Your task to perform on an android device: find photos in the google photos app Image 0: 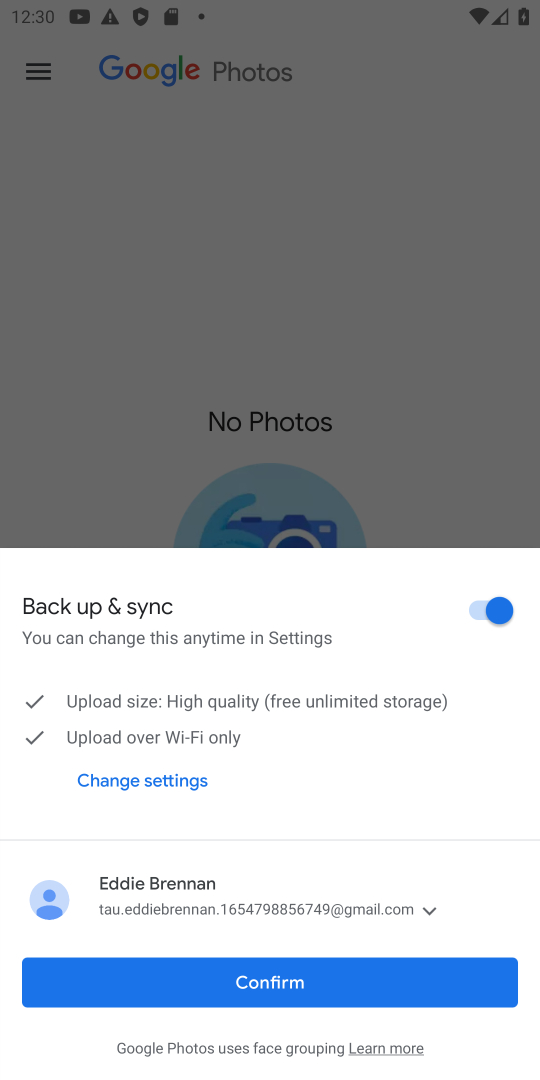
Step 0: press home button
Your task to perform on an android device: find photos in the google photos app Image 1: 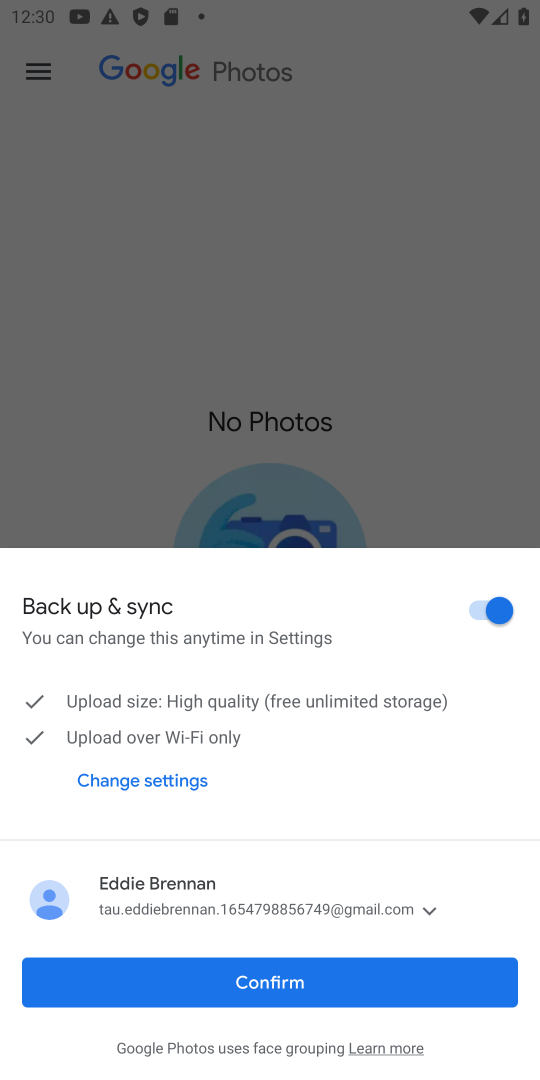
Step 1: press home button
Your task to perform on an android device: find photos in the google photos app Image 2: 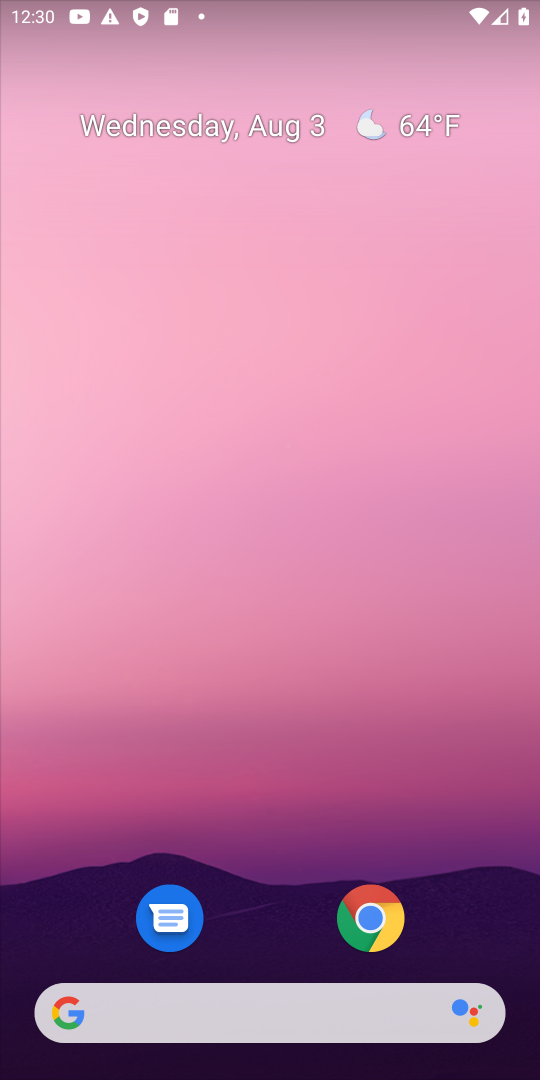
Step 2: drag from (293, 816) to (380, 15)
Your task to perform on an android device: find photos in the google photos app Image 3: 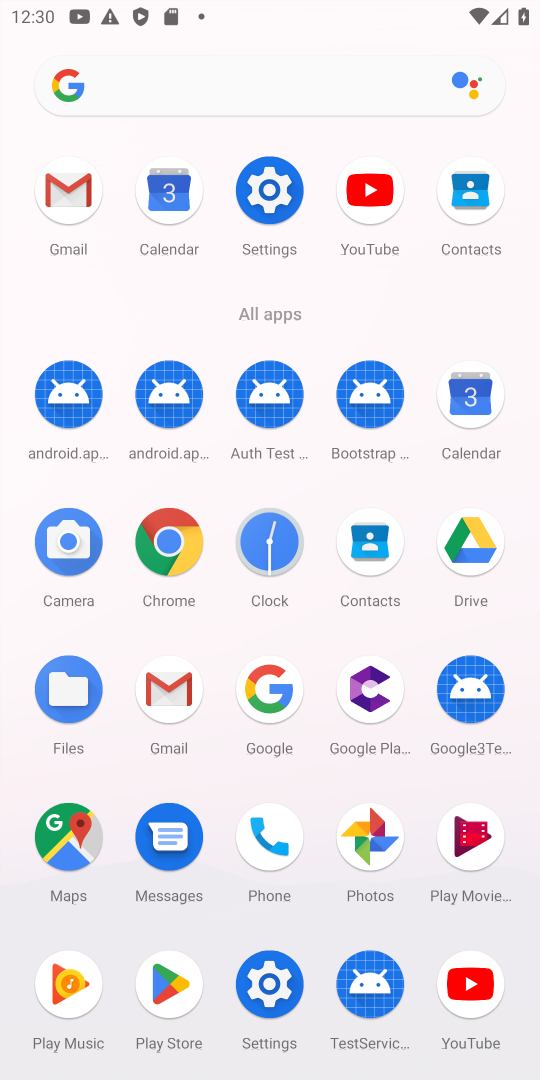
Step 3: click (377, 838)
Your task to perform on an android device: find photos in the google photos app Image 4: 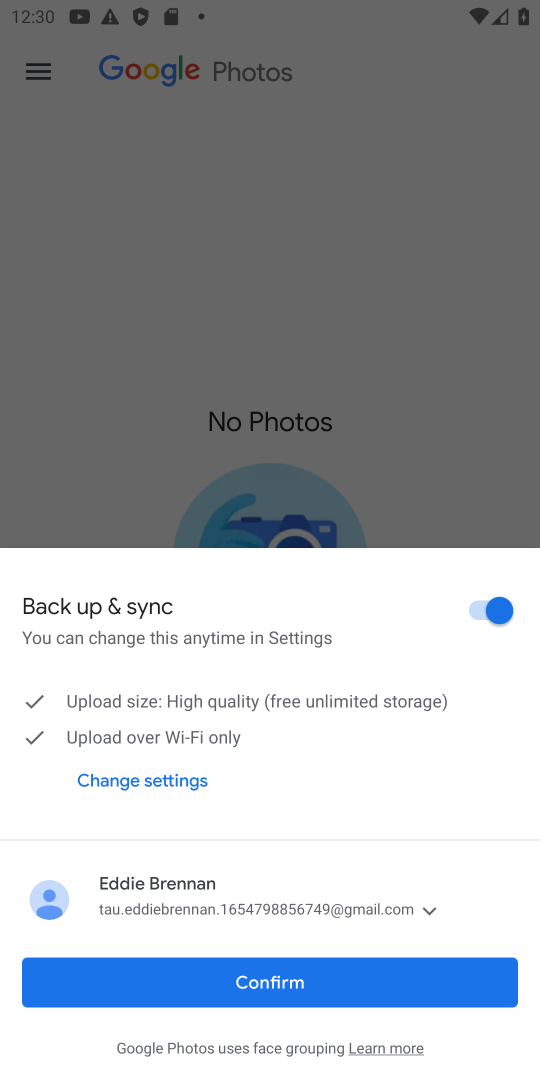
Step 4: click (356, 990)
Your task to perform on an android device: find photos in the google photos app Image 5: 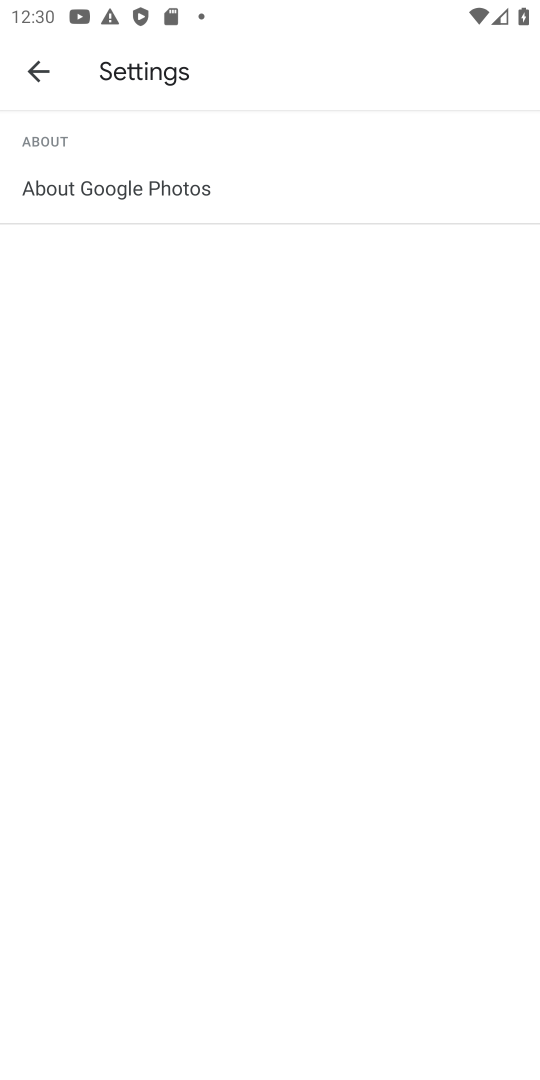
Step 5: click (41, 68)
Your task to perform on an android device: find photos in the google photos app Image 6: 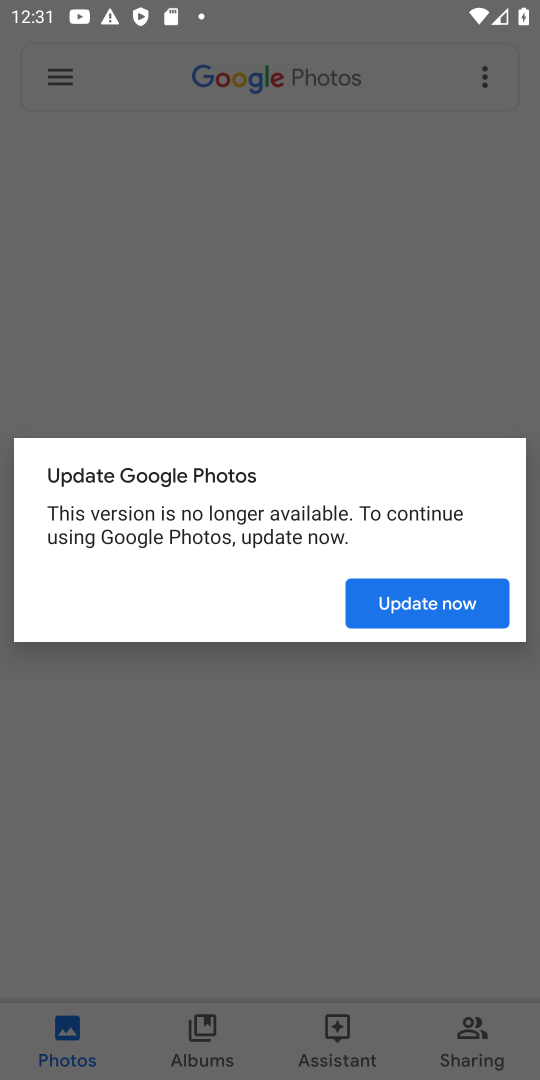
Step 6: click (392, 605)
Your task to perform on an android device: find photos in the google photos app Image 7: 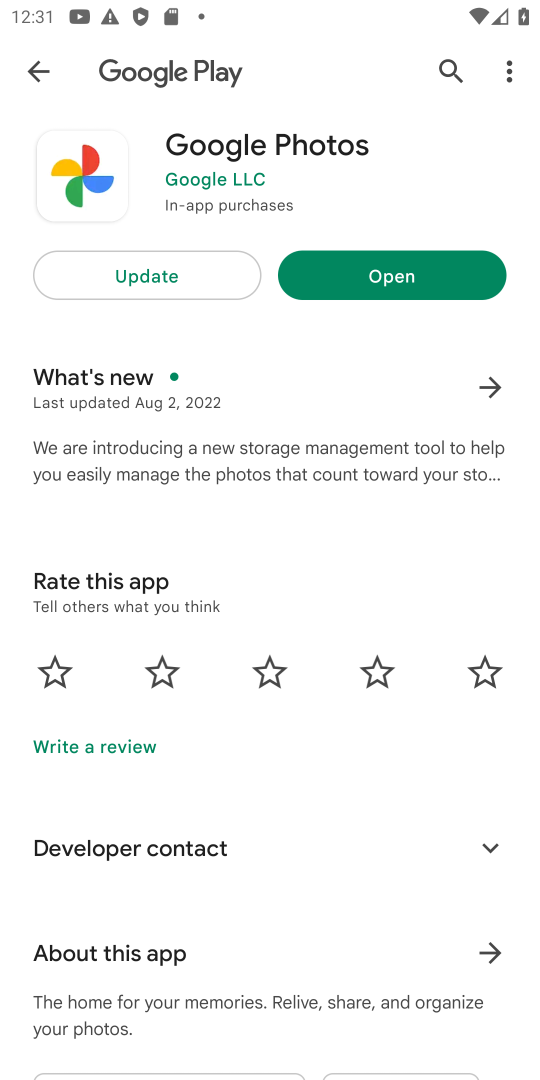
Step 7: click (175, 273)
Your task to perform on an android device: find photos in the google photos app Image 8: 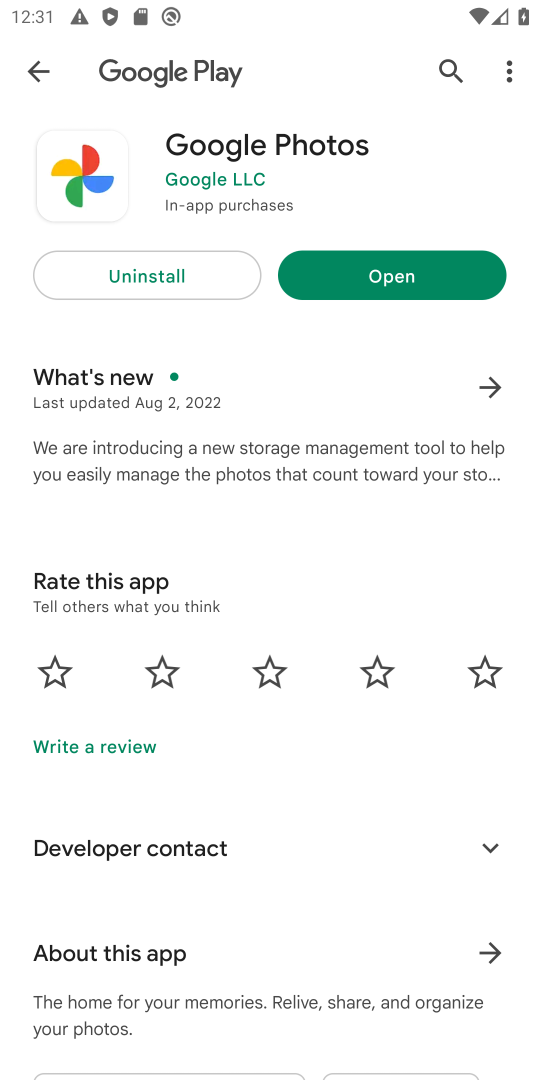
Step 8: click (443, 269)
Your task to perform on an android device: find photos in the google photos app Image 9: 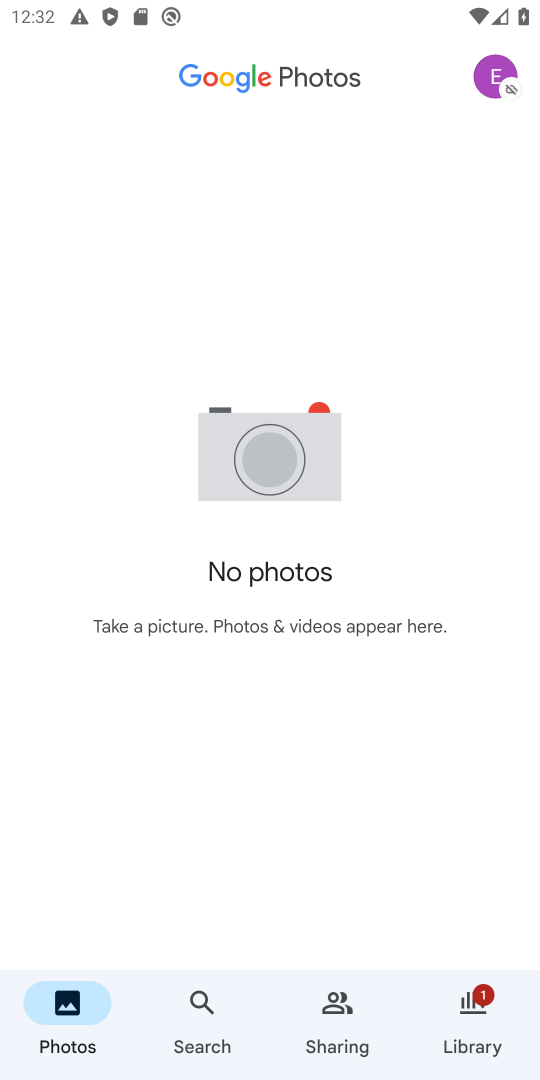
Step 9: task complete